Your task to perform on an android device: Open battery settings Image 0: 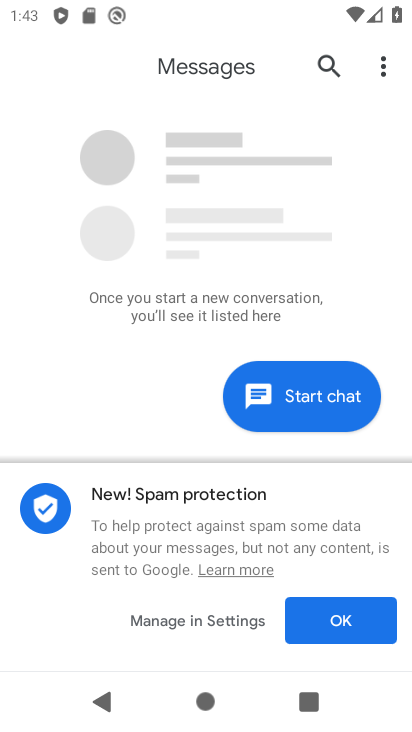
Step 0: press home button
Your task to perform on an android device: Open battery settings Image 1: 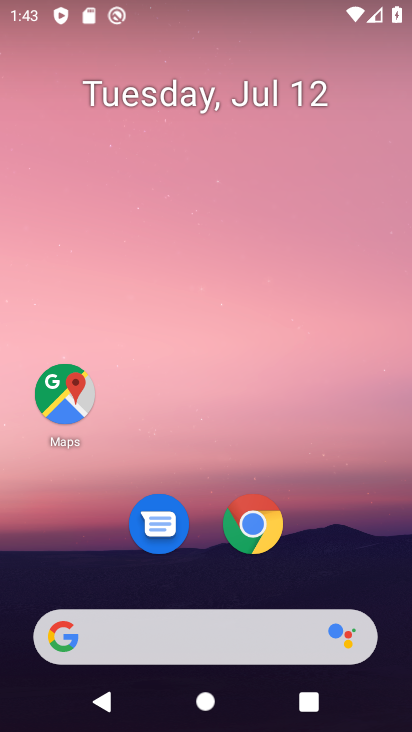
Step 1: drag from (339, 487) to (338, 10)
Your task to perform on an android device: Open battery settings Image 2: 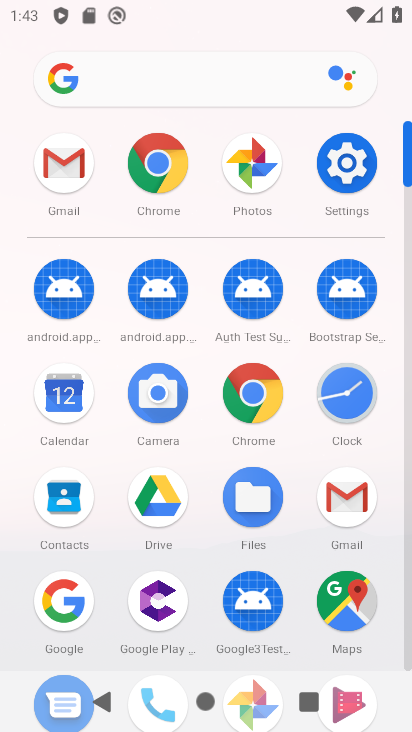
Step 2: click (352, 153)
Your task to perform on an android device: Open battery settings Image 3: 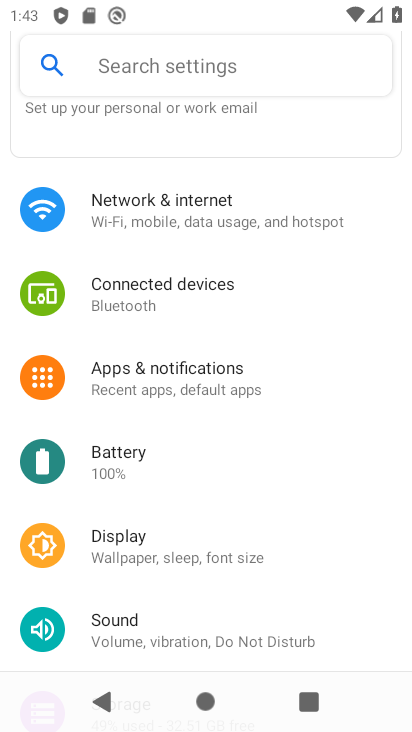
Step 3: click (124, 465)
Your task to perform on an android device: Open battery settings Image 4: 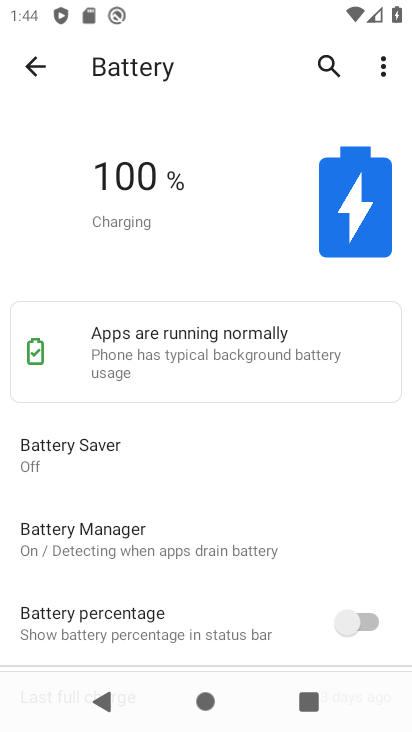
Step 4: task complete